Your task to perform on an android device: change alarm snooze length Image 0: 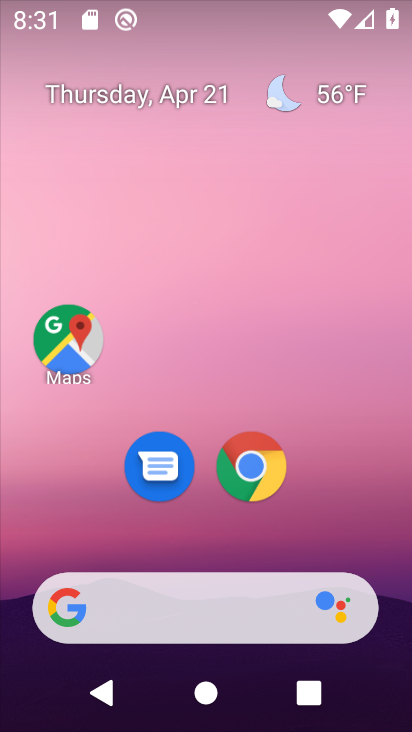
Step 0: drag from (161, 571) to (236, 76)
Your task to perform on an android device: change alarm snooze length Image 1: 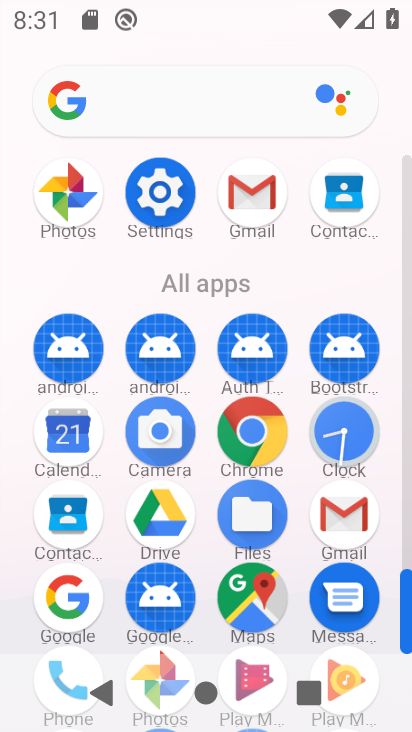
Step 1: click (360, 440)
Your task to perform on an android device: change alarm snooze length Image 2: 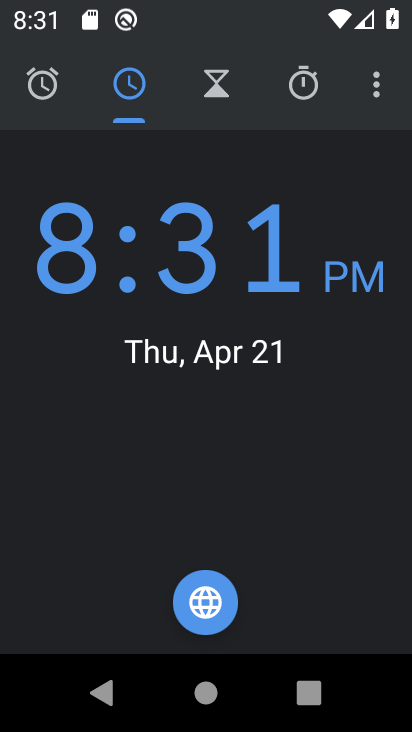
Step 2: click (377, 90)
Your task to perform on an android device: change alarm snooze length Image 3: 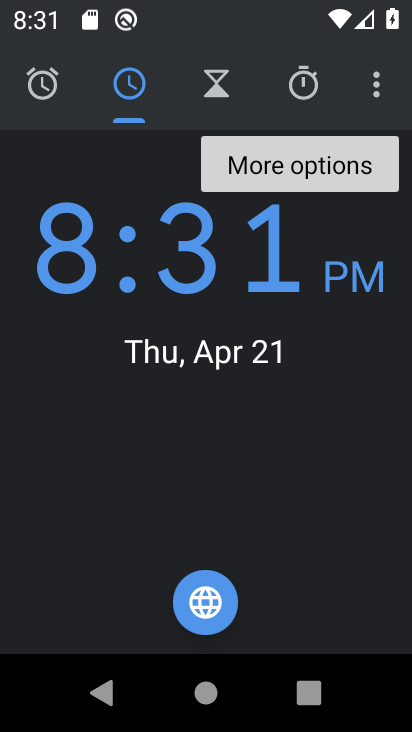
Step 3: click (376, 87)
Your task to perform on an android device: change alarm snooze length Image 4: 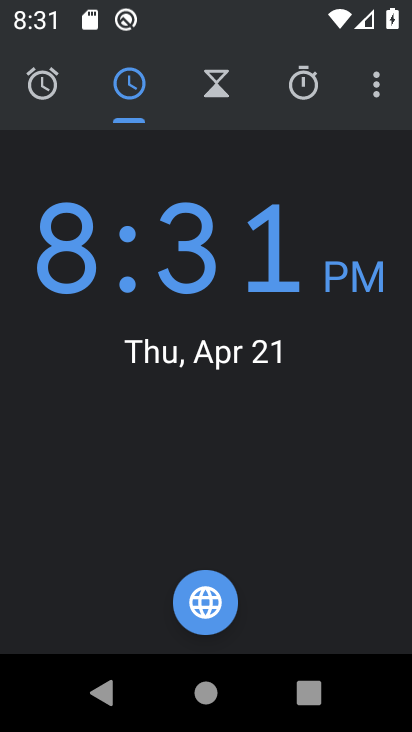
Step 4: drag from (380, 89) to (375, 166)
Your task to perform on an android device: change alarm snooze length Image 5: 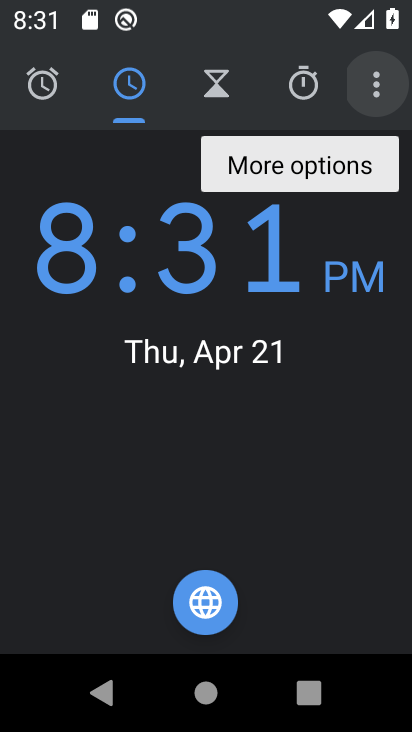
Step 5: click (372, 159)
Your task to perform on an android device: change alarm snooze length Image 6: 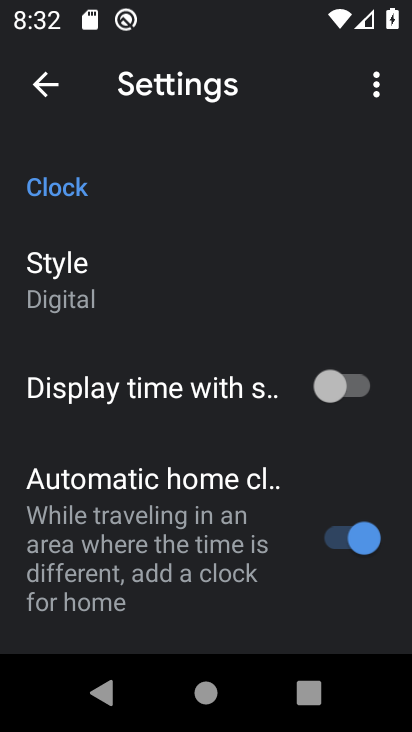
Step 6: drag from (140, 594) to (296, 101)
Your task to perform on an android device: change alarm snooze length Image 7: 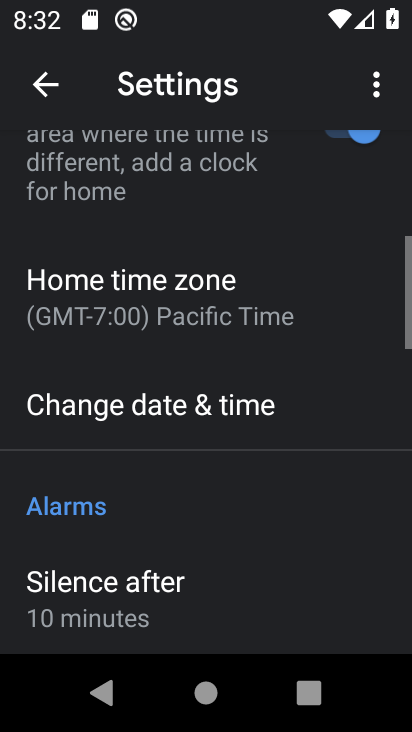
Step 7: drag from (157, 540) to (230, 211)
Your task to perform on an android device: change alarm snooze length Image 8: 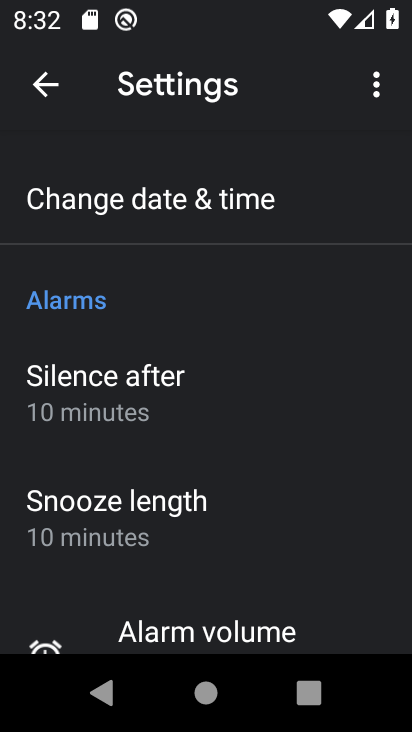
Step 8: click (170, 527)
Your task to perform on an android device: change alarm snooze length Image 9: 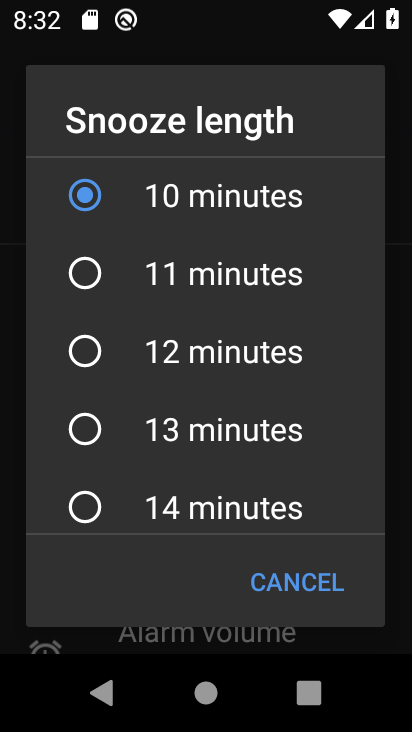
Step 9: drag from (237, 478) to (268, 285)
Your task to perform on an android device: change alarm snooze length Image 10: 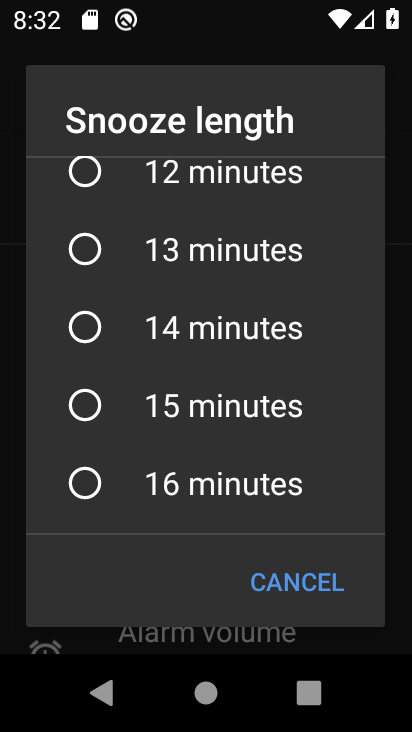
Step 10: click (205, 410)
Your task to perform on an android device: change alarm snooze length Image 11: 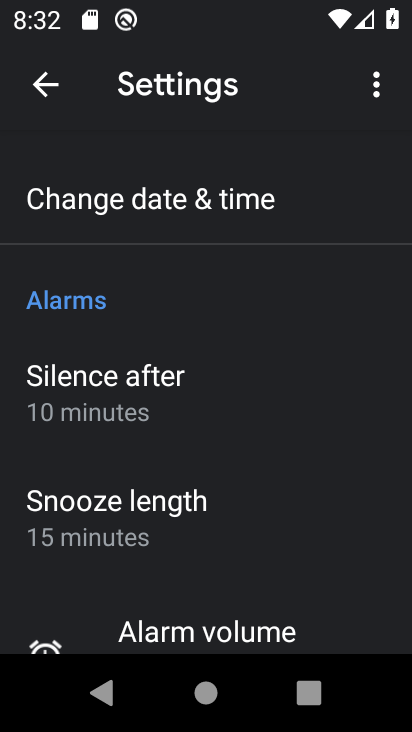
Step 11: task complete